Your task to perform on an android device: Open internet settings Image 0: 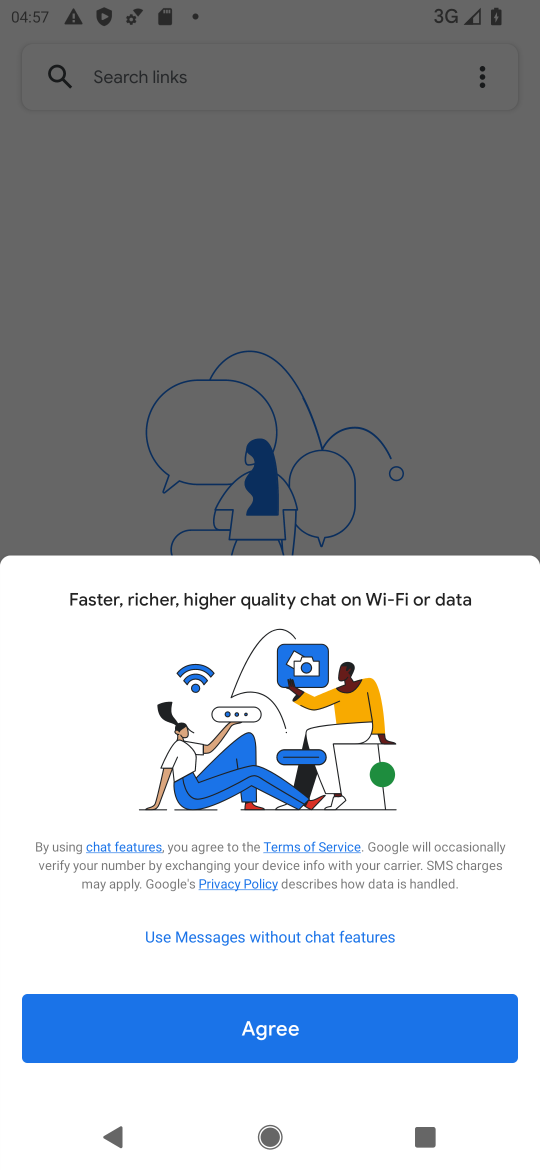
Step 0: press home button
Your task to perform on an android device: Open internet settings Image 1: 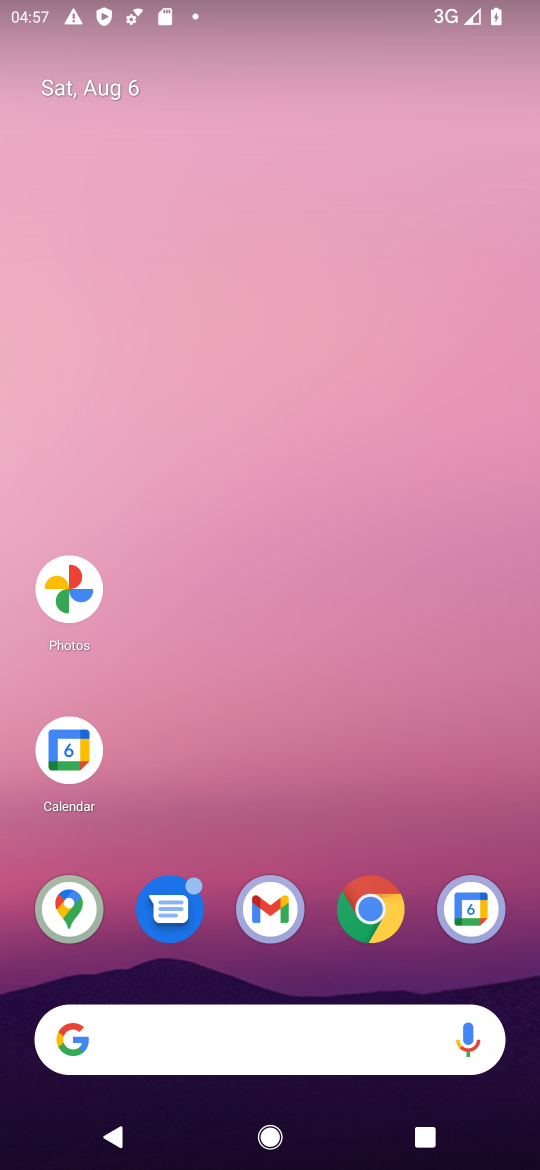
Step 1: drag from (239, 769) to (212, 52)
Your task to perform on an android device: Open internet settings Image 2: 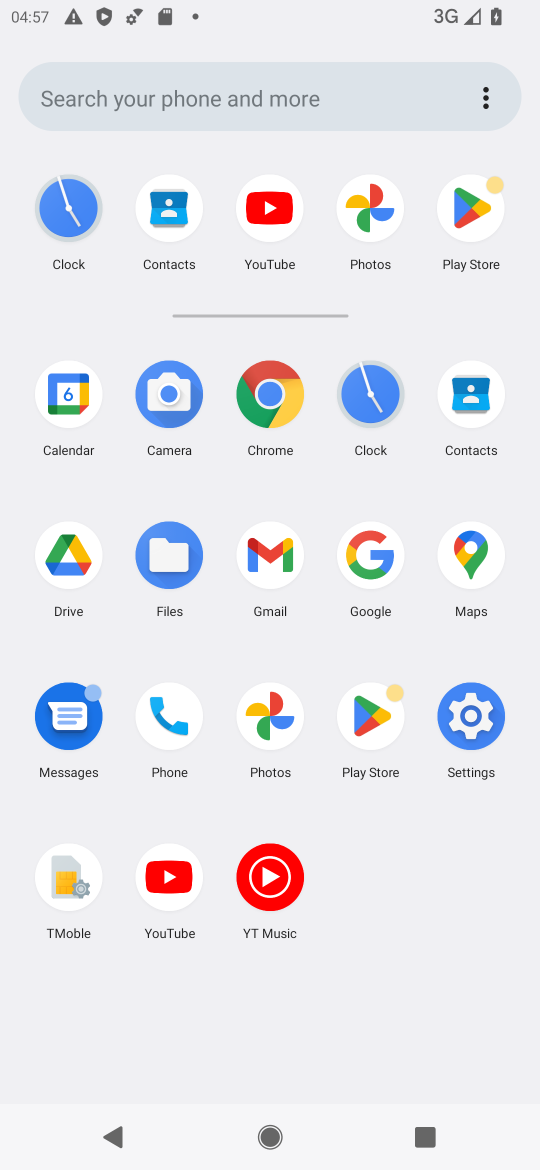
Step 2: click (475, 707)
Your task to perform on an android device: Open internet settings Image 3: 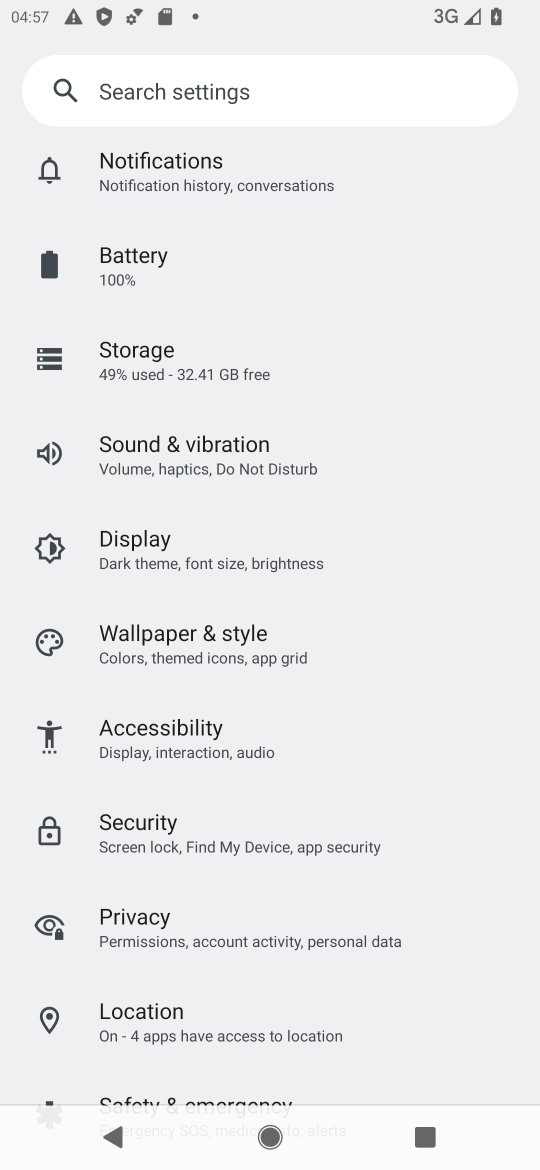
Step 3: drag from (270, 242) to (266, 614)
Your task to perform on an android device: Open internet settings Image 4: 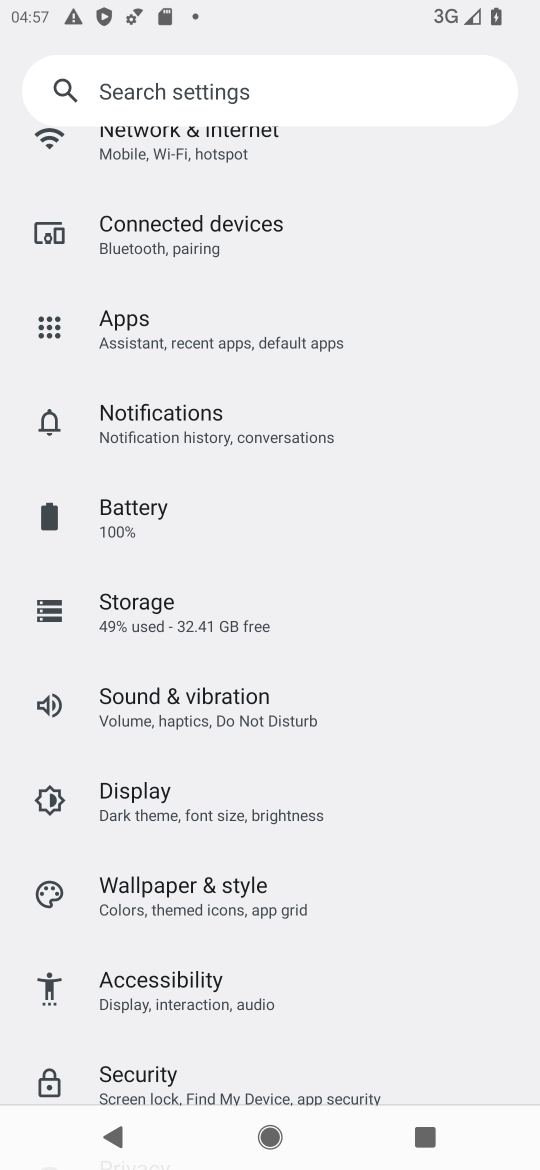
Step 4: drag from (325, 263) to (348, 571)
Your task to perform on an android device: Open internet settings Image 5: 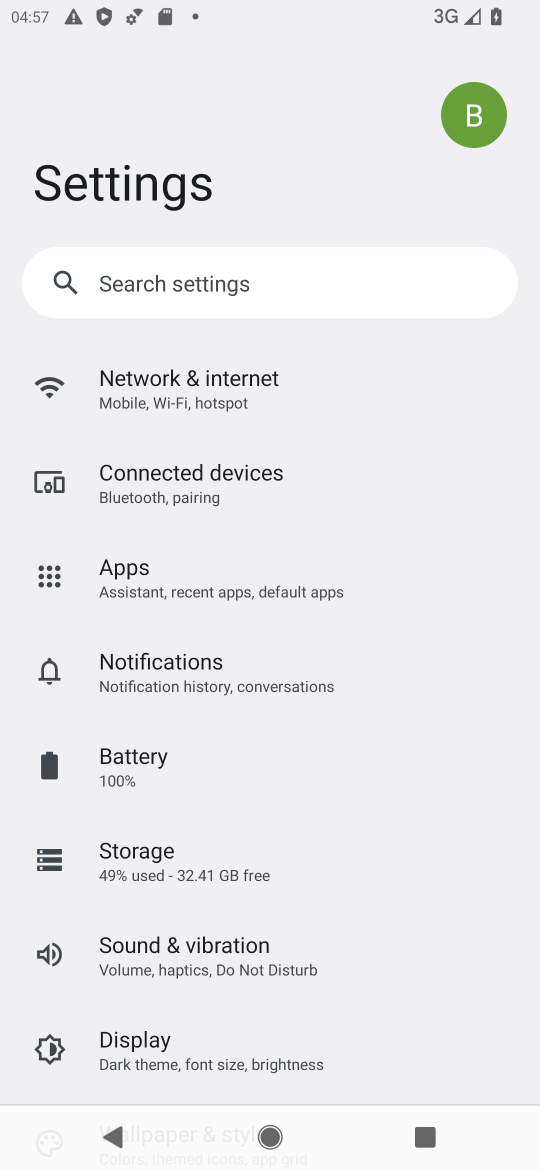
Step 5: click (177, 362)
Your task to perform on an android device: Open internet settings Image 6: 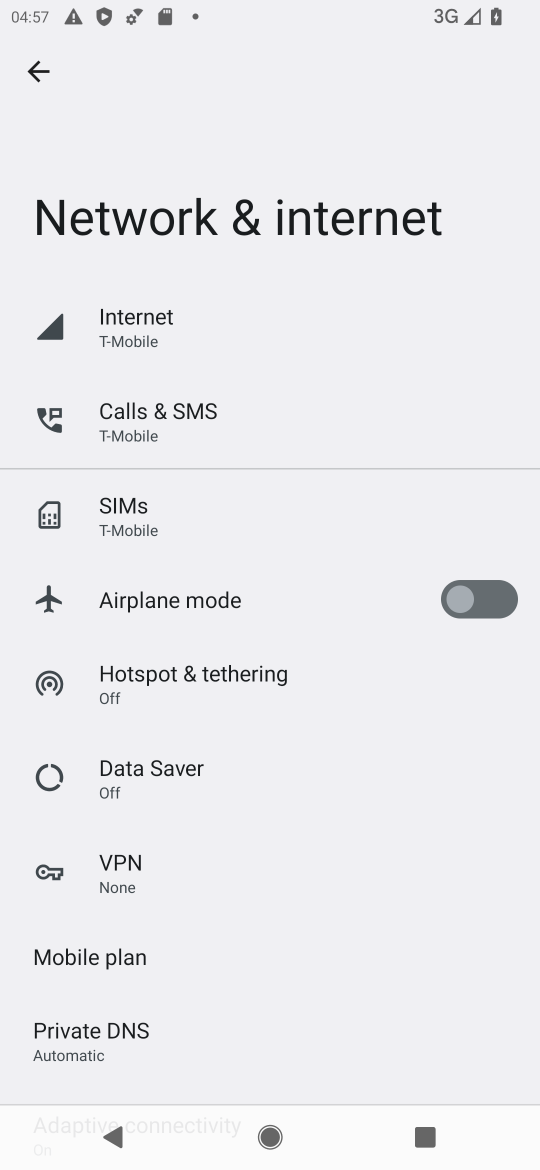
Step 6: click (120, 315)
Your task to perform on an android device: Open internet settings Image 7: 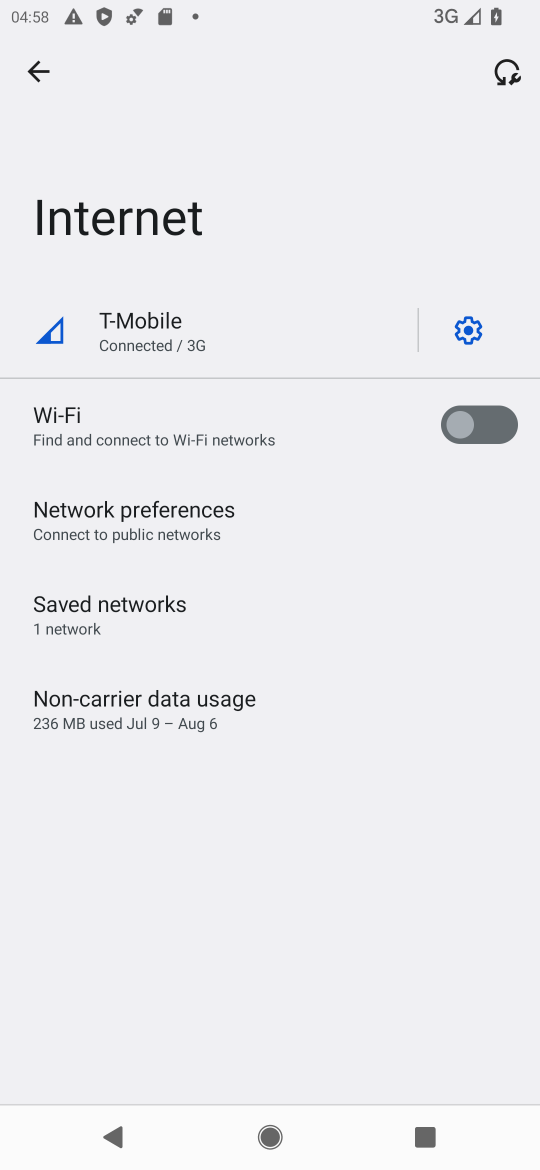
Step 7: task complete